Your task to perform on an android device: Open Youtube and go to "Your channel" Image 0: 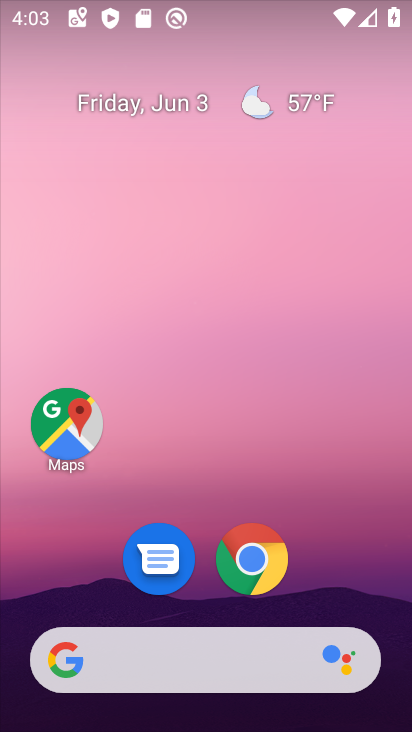
Step 0: drag from (305, 584) to (337, 197)
Your task to perform on an android device: Open Youtube and go to "Your channel" Image 1: 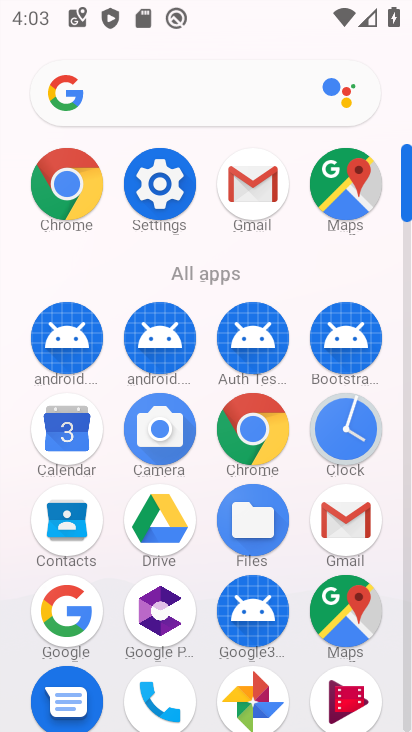
Step 1: drag from (303, 545) to (347, 162)
Your task to perform on an android device: Open Youtube and go to "Your channel" Image 2: 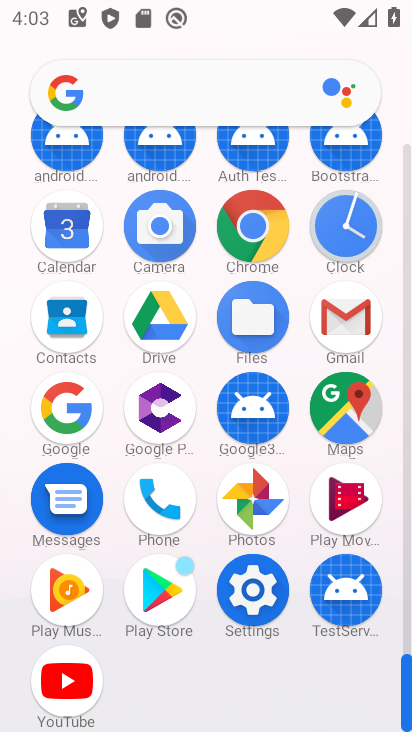
Step 2: click (87, 678)
Your task to perform on an android device: Open Youtube and go to "Your channel" Image 3: 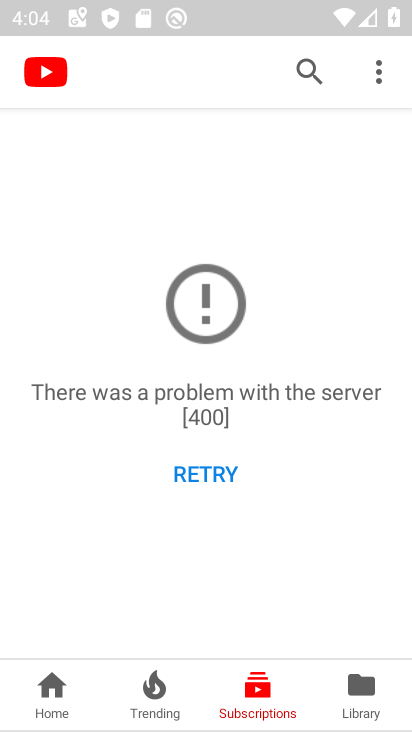
Step 3: click (376, 77)
Your task to perform on an android device: Open Youtube and go to "Your channel" Image 4: 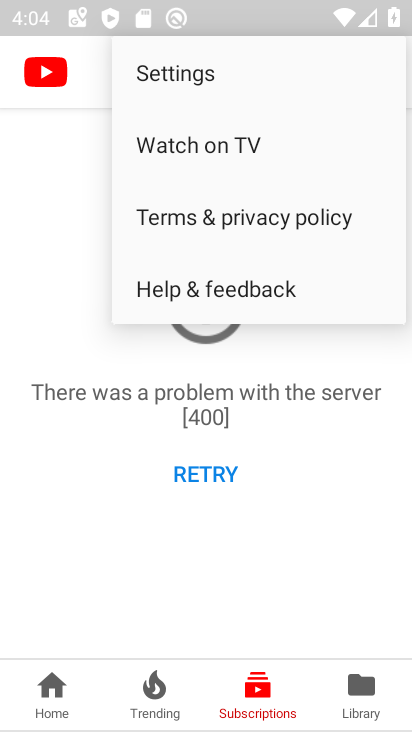
Step 4: task complete